Your task to perform on an android device: allow cookies in the chrome app Image 0: 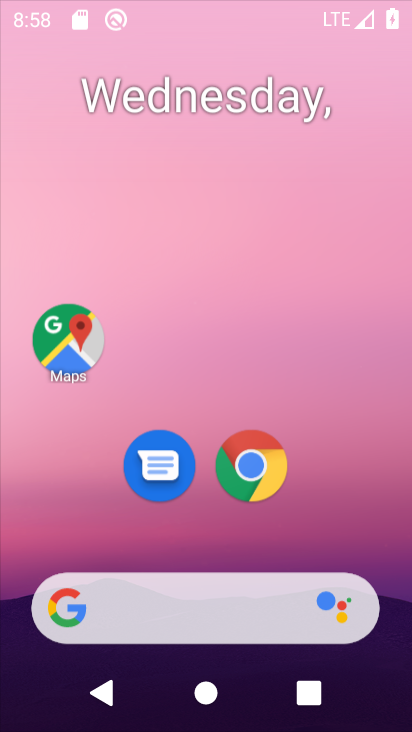
Step 0: drag from (217, 239) to (217, 167)
Your task to perform on an android device: allow cookies in the chrome app Image 1: 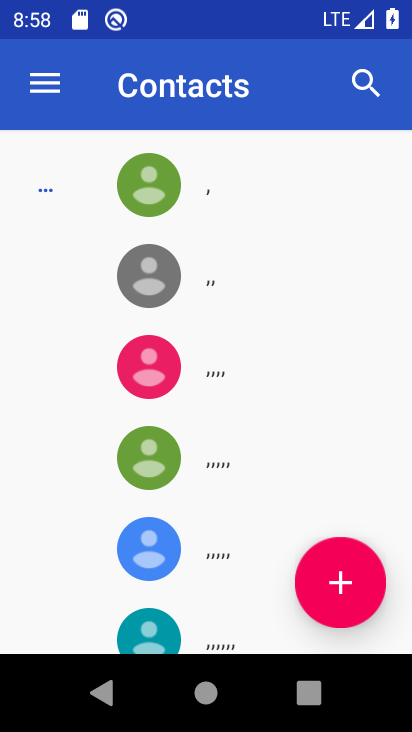
Step 1: press home button
Your task to perform on an android device: allow cookies in the chrome app Image 2: 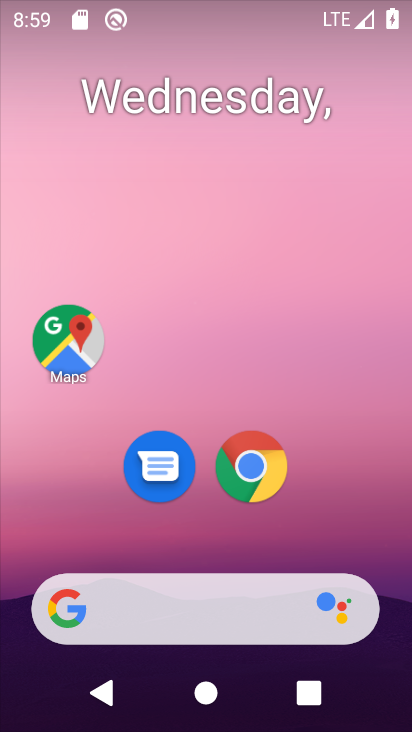
Step 2: click (254, 463)
Your task to perform on an android device: allow cookies in the chrome app Image 3: 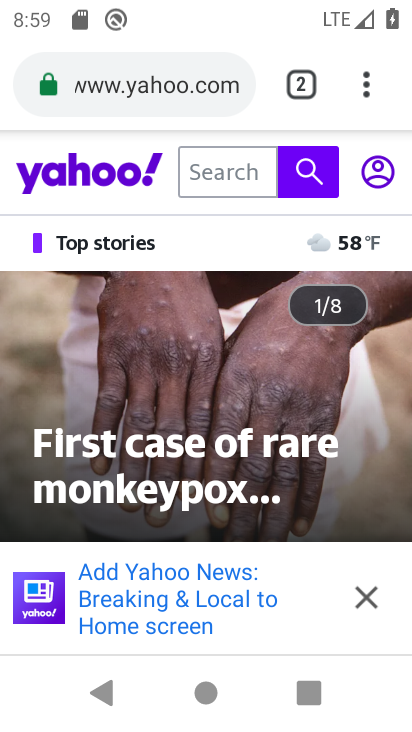
Step 3: click (368, 93)
Your task to perform on an android device: allow cookies in the chrome app Image 4: 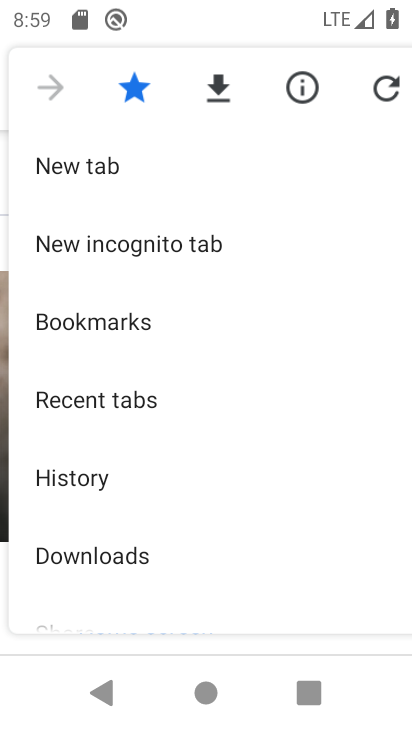
Step 4: drag from (135, 568) to (153, 215)
Your task to perform on an android device: allow cookies in the chrome app Image 5: 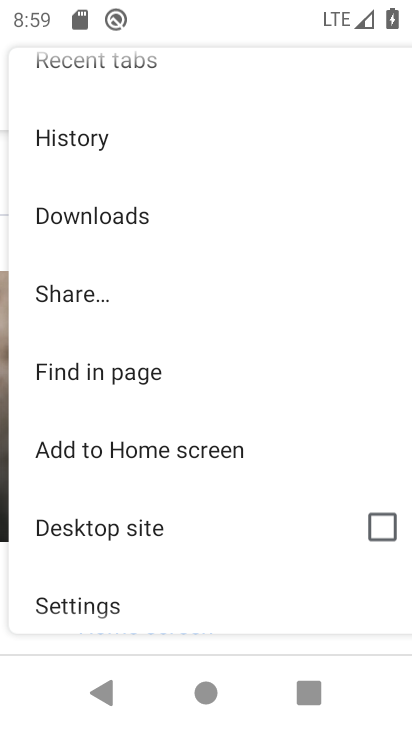
Step 5: click (103, 607)
Your task to perform on an android device: allow cookies in the chrome app Image 6: 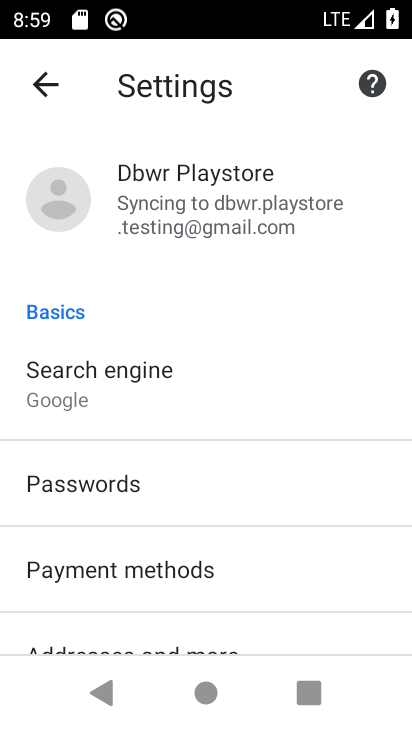
Step 6: drag from (167, 609) to (201, 364)
Your task to perform on an android device: allow cookies in the chrome app Image 7: 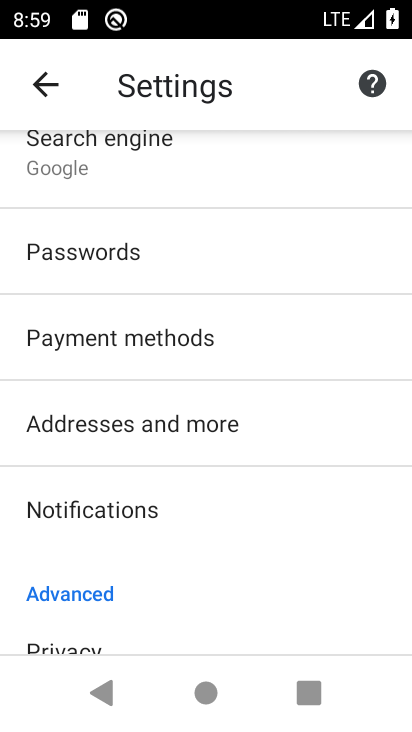
Step 7: drag from (168, 619) to (188, 291)
Your task to perform on an android device: allow cookies in the chrome app Image 8: 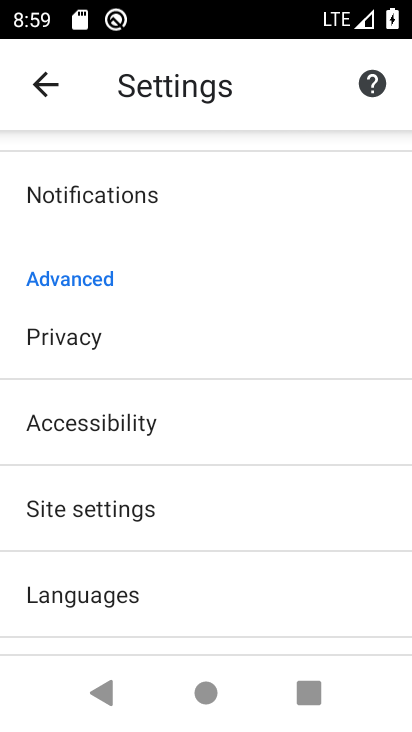
Step 8: click (135, 507)
Your task to perform on an android device: allow cookies in the chrome app Image 9: 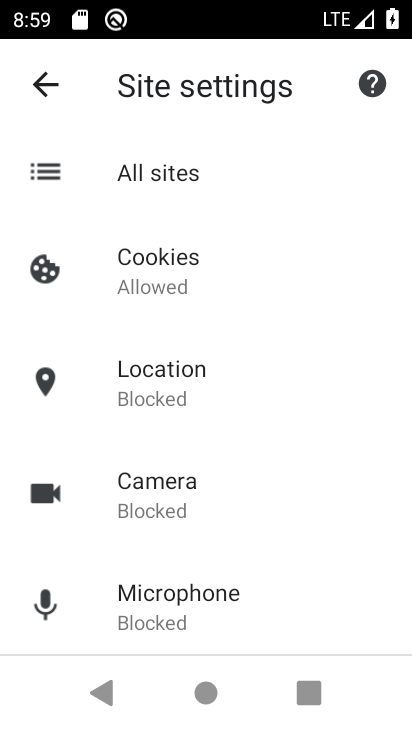
Step 9: click (170, 269)
Your task to perform on an android device: allow cookies in the chrome app Image 10: 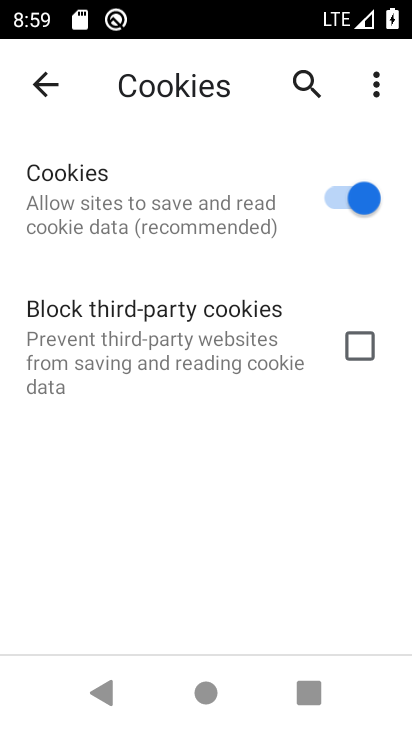
Step 10: task complete